Your task to perform on an android device: allow cookies in the chrome app Image 0: 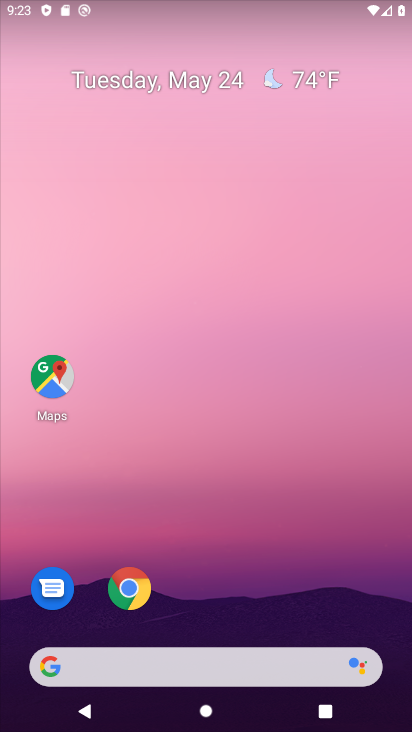
Step 0: click (132, 582)
Your task to perform on an android device: allow cookies in the chrome app Image 1: 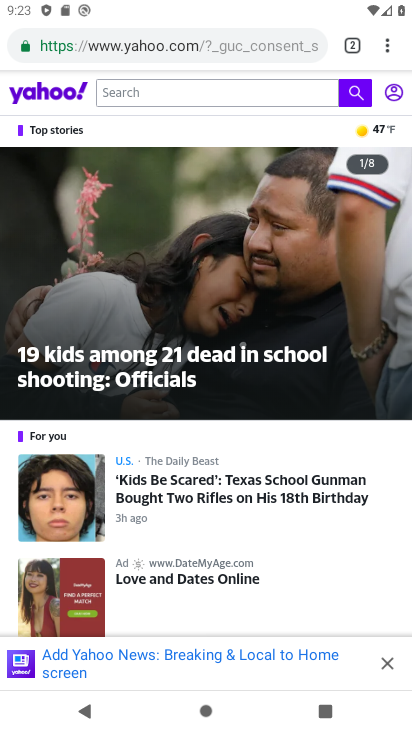
Step 1: click (393, 45)
Your task to perform on an android device: allow cookies in the chrome app Image 2: 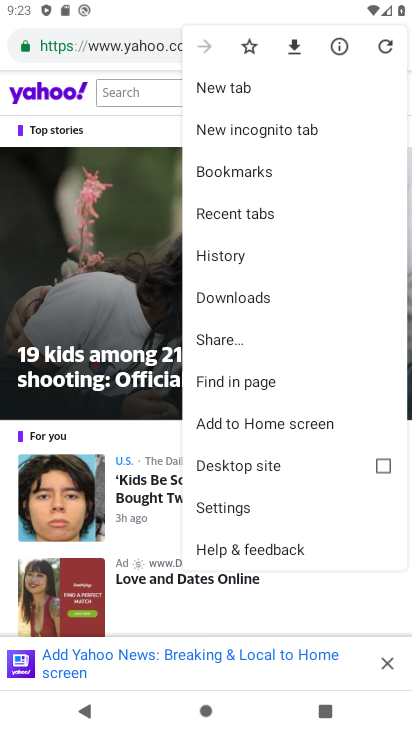
Step 2: click (211, 509)
Your task to perform on an android device: allow cookies in the chrome app Image 3: 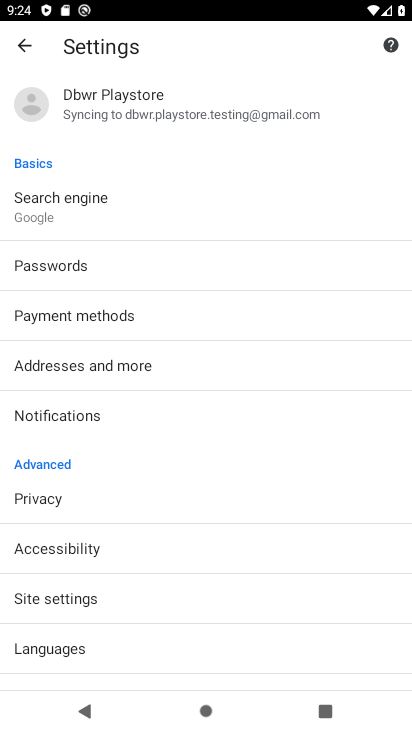
Step 3: drag from (141, 641) to (213, 280)
Your task to perform on an android device: allow cookies in the chrome app Image 4: 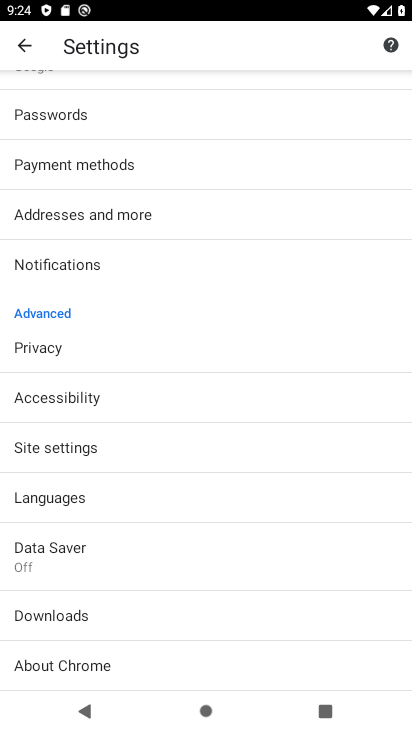
Step 4: drag from (137, 572) to (276, 263)
Your task to perform on an android device: allow cookies in the chrome app Image 5: 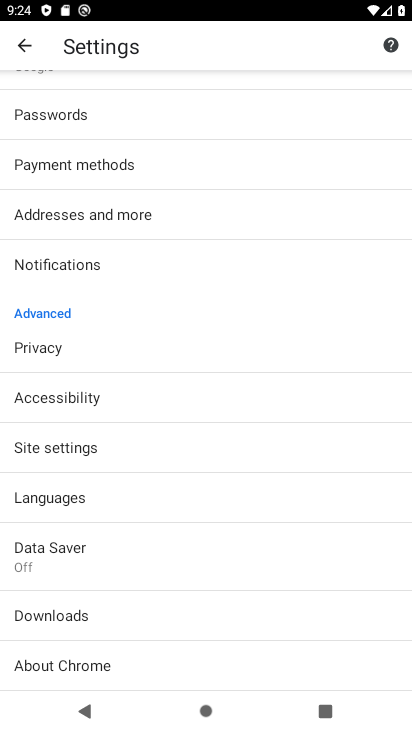
Step 5: click (125, 450)
Your task to perform on an android device: allow cookies in the chrome app Image 6: 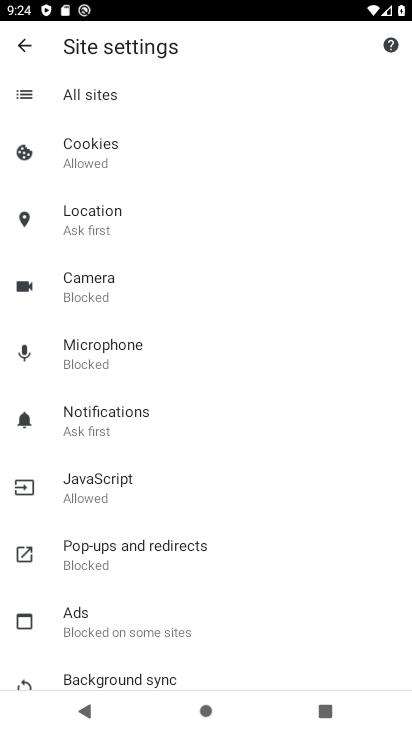
Step 6: click (183, 147)
Your task to perform on an android device: allow cookies in the chrome app Image 7: 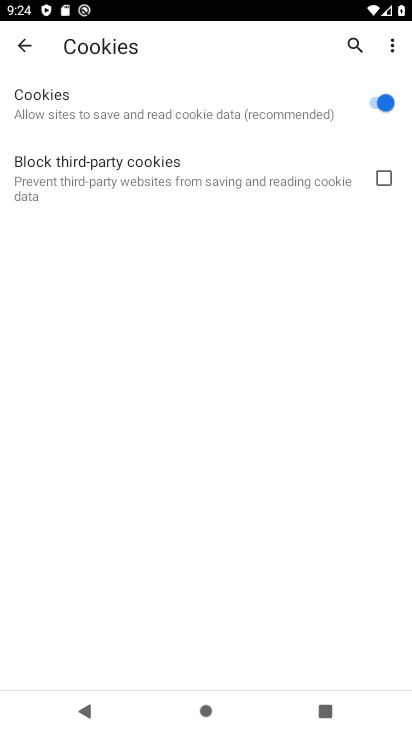
Step 7: task complete